Your task to perform on an android device: Go to Maps Image 0: 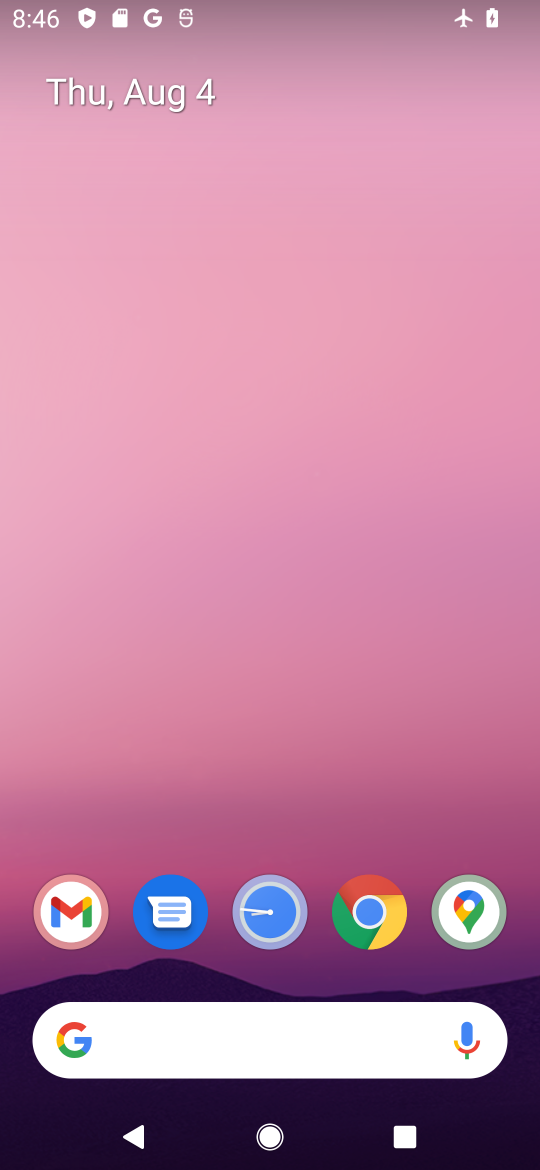
Step 0: click (471, 907)
Your task to perform on an android device: Go to Maps Image 1: 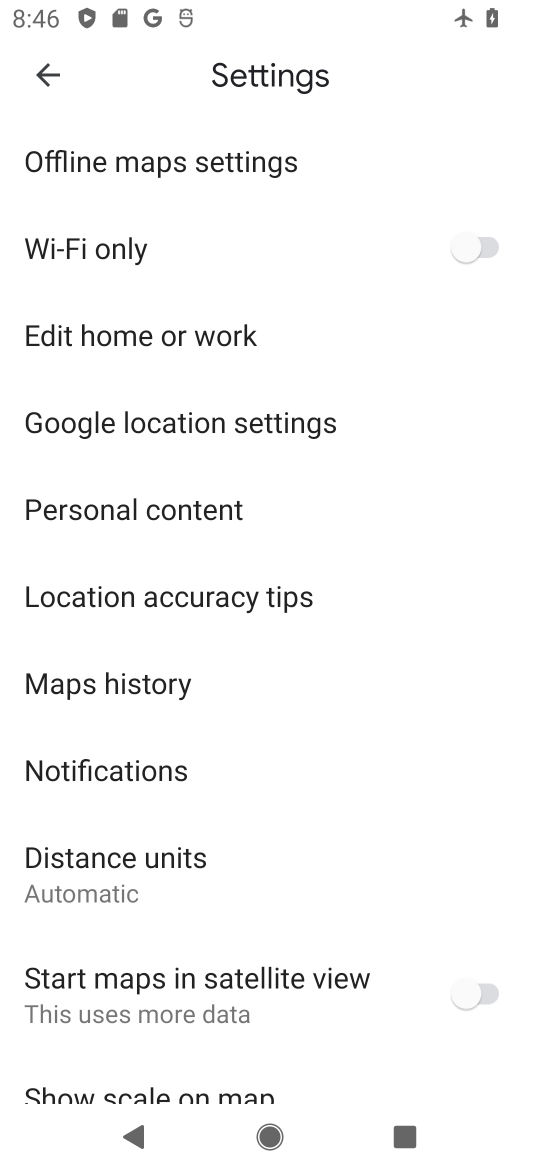
Step 1: click (39, 71)
Your task to perform on an android device: Go to Maps Image 2: 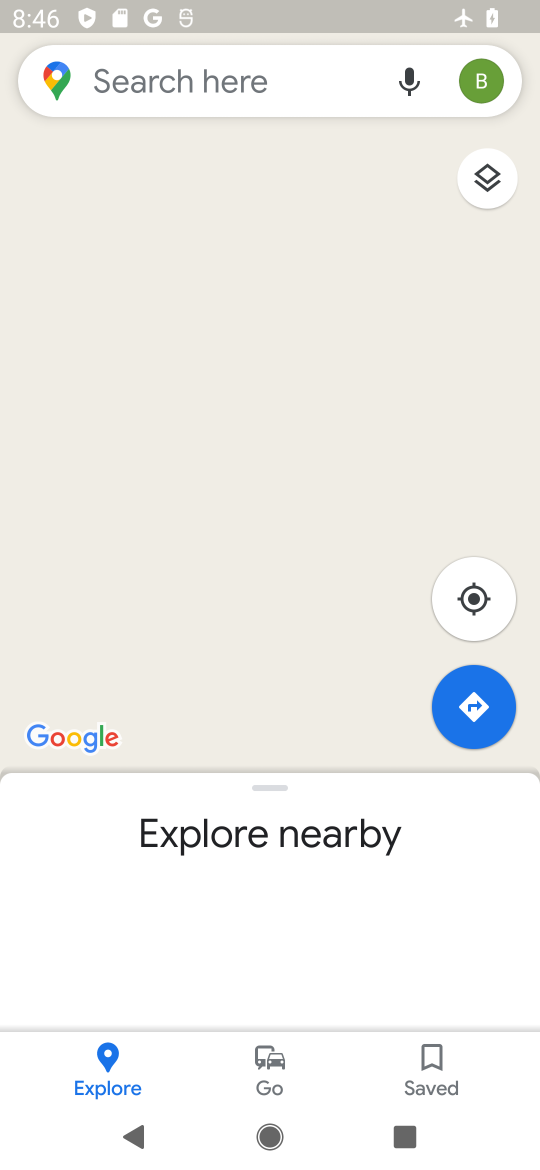
Step 2: task complete